Your task to perform on an android device: toggle priority inbox in the gmail app Image 0: 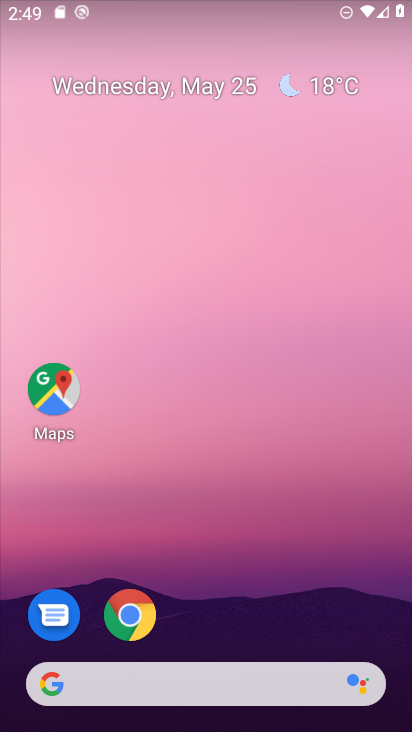
Step 0: drag from (250, 591) to (256, 71)
Your task to perform on an android device: toggle priority inbox in the gmail app Image 1: 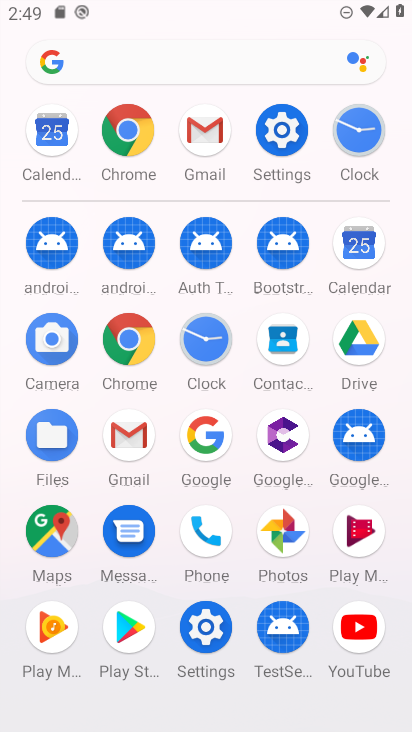
Step 1: click (202, 141)
Your task to perform on an android device: toggle priority inbox in the gmail app Image 2: 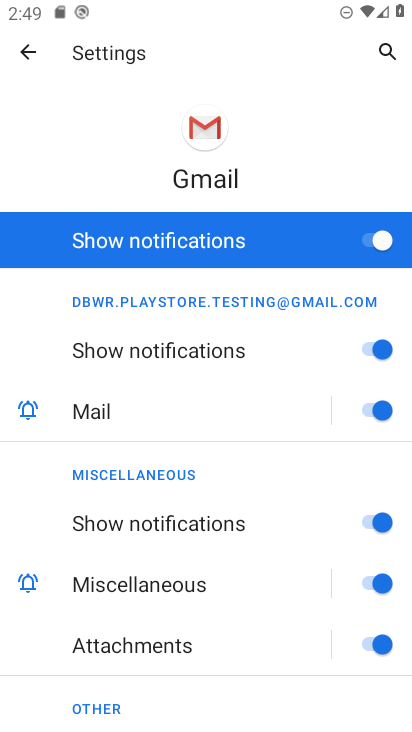
Step 2: click (23, 45)
Your task to perform on an android device: toggle priority inbox in the gmail app Image 3: 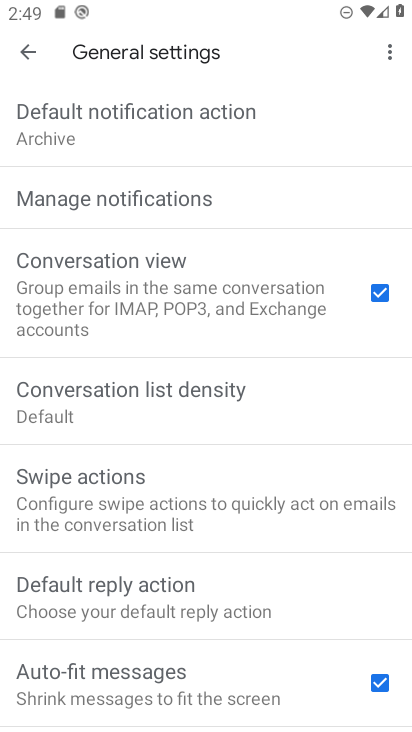
Step 3: click (23, 47)
Your task to perform on an android device: toggle priority inbox in the gmail app Image 4: 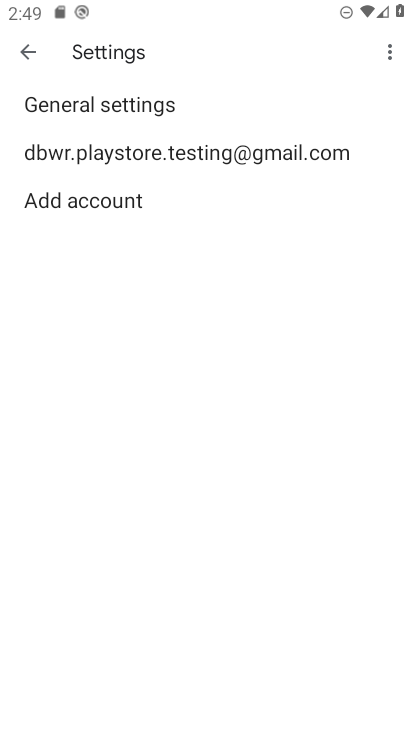
Step 4: click (119, 144)
Your task to perform on an android device: toggle priority inbox in the gmail app Image 5: 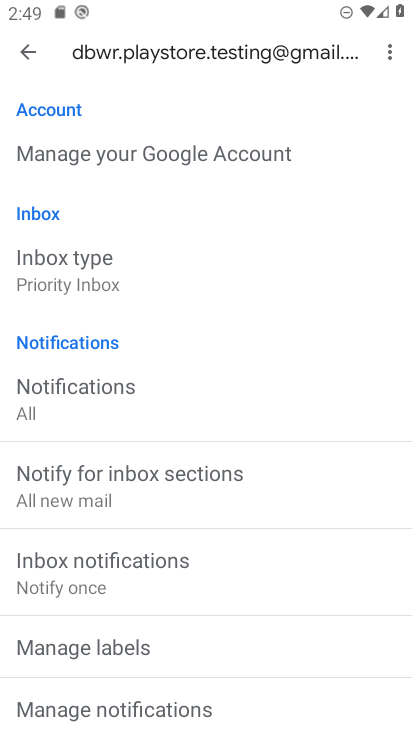
Step 5: click (114, 253)
Your task to perform on an android device: toggle priority inbox in the gmail app Image 6: 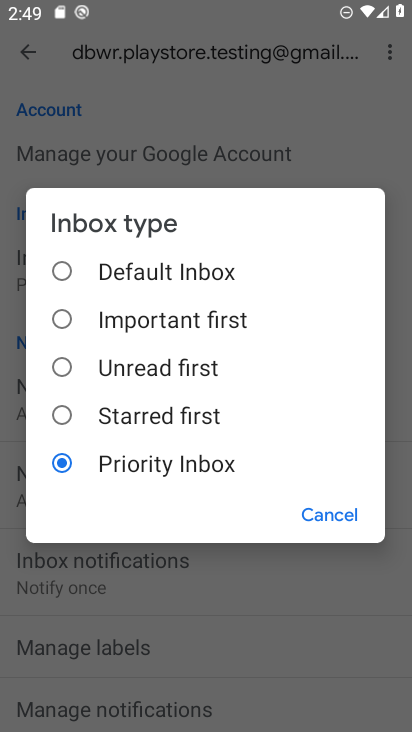
Step 6: click (58, 266)
Your task to perform on an android device: toggle priority inbox in the gmail app Image 7: 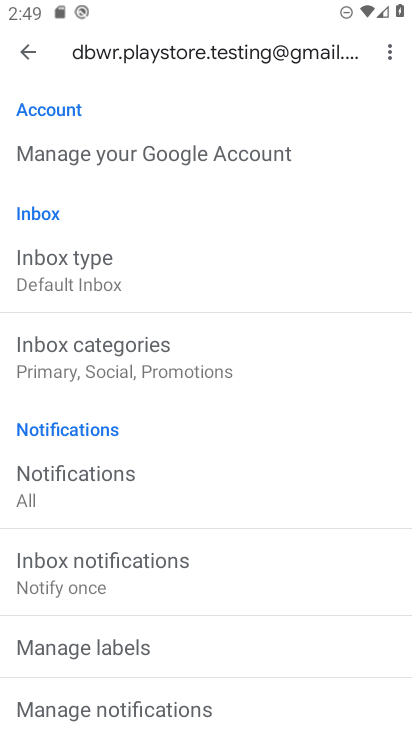
Step 7: task complete